Your task to perform on an android device: What's the weather going to be this weekend? Image 0: 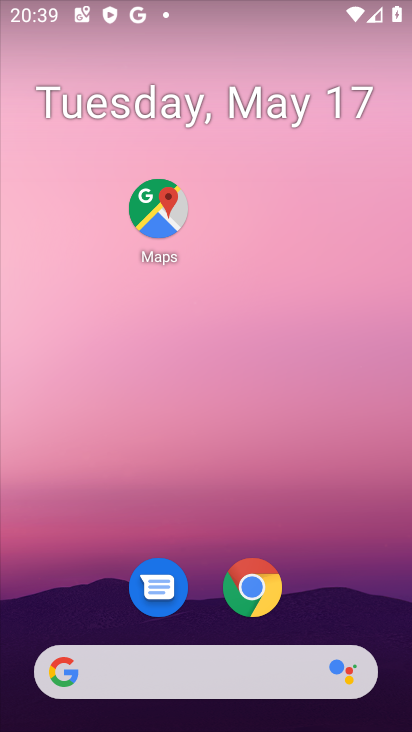
Step 0: press home button
Your task to perform on an android device: What's the weather going to be this weekend? Image 1: 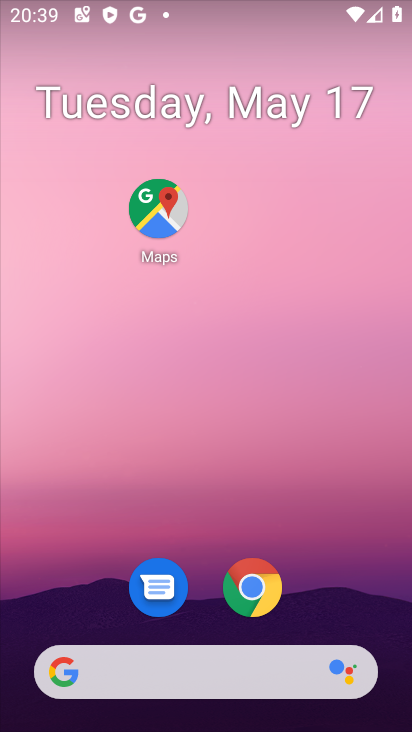
Step 1: click (174, 655)
Your task to perform on an android device: What's the weather going to be this weekend? Image 2: 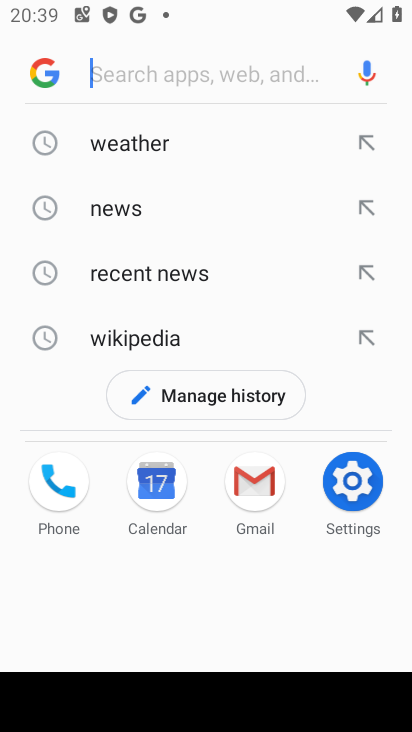
Step 2: click (122, 157)
Your task to perform on an android device: What's the weather going to be this weekend? Image 3: 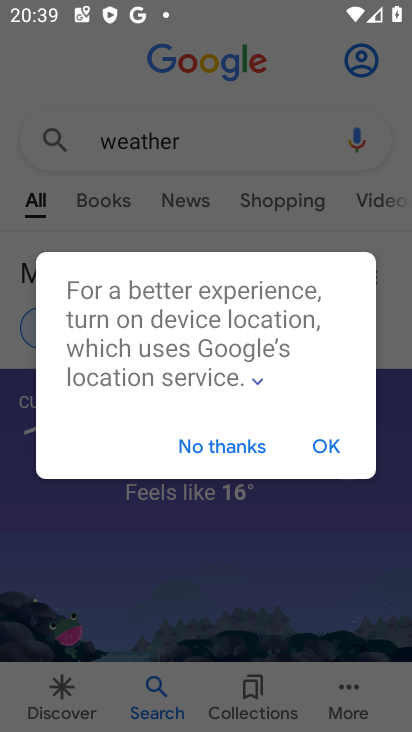
Step 3: click (228, 452)
Your task to perform on an android device: What's the weather going to be this weekend? Image 4: 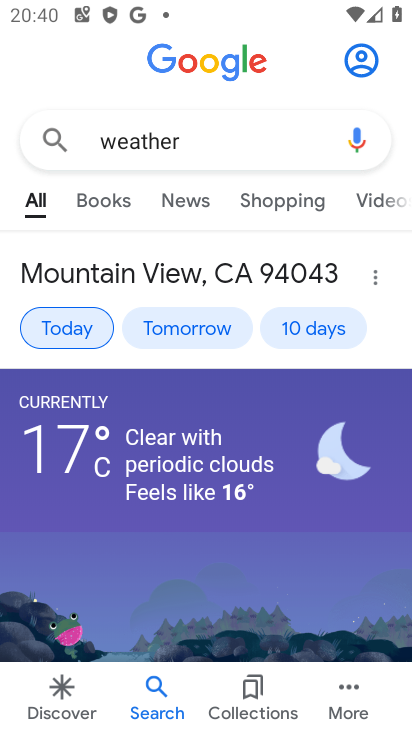
Step 4: click (293, 326)
Your task to perform on an android device: What's the weather going to be this weekend? Image 5: 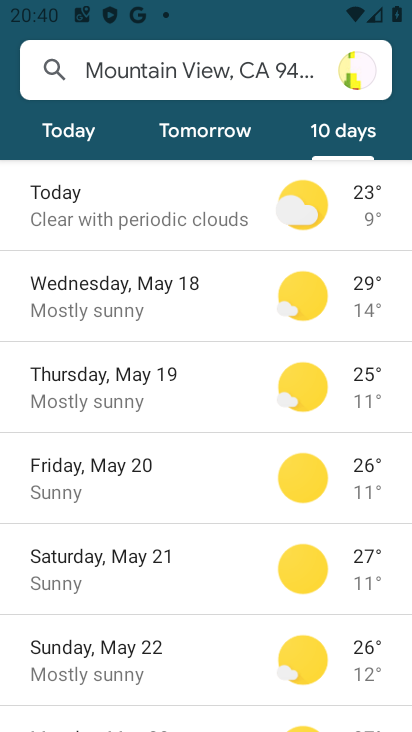
Step 5: task complete